Your task to perform on an android device: turn on the 12-hour format for clock Image 0: 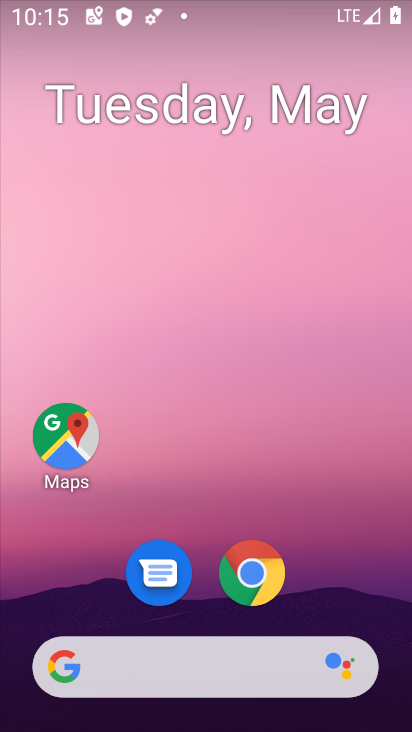
Step 0: drag from (121, 617) to (81, 43)
Your task to perform on an android device: turn on the 12-hour format for clock Image 1: 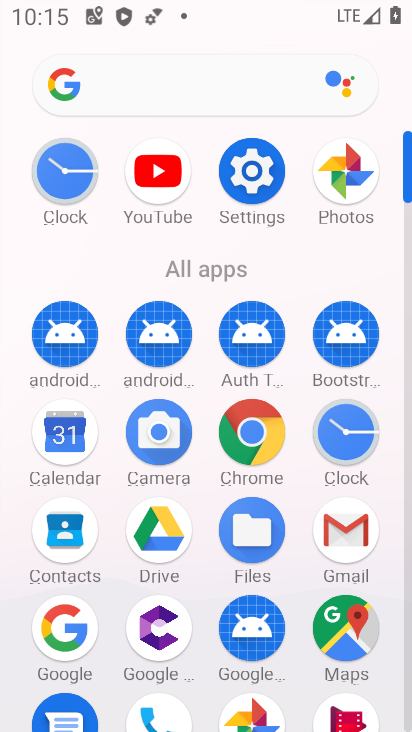
Step 1: click (251, 196)
Your task to perform on an android device: turn on the 12-hour format for clock Image 2: 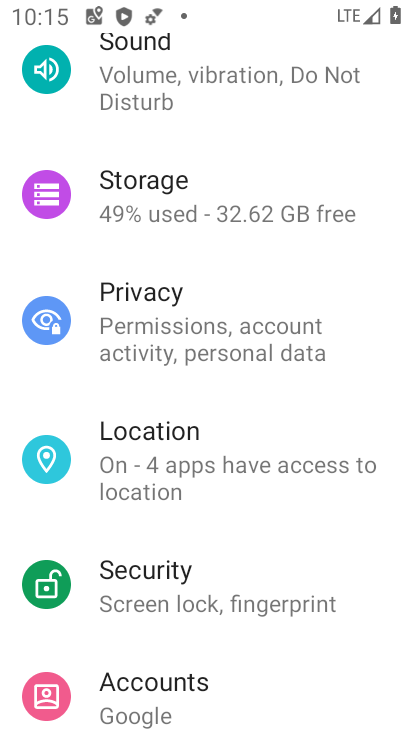
Step 2: drag from (283, 646) to (244, 168)
Your task to perform on an android device: turn on the 12-hour format for clock Image 3: 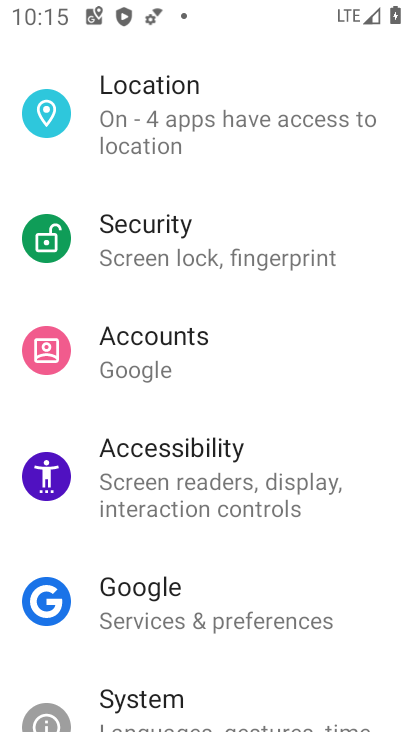
Step 3: drag from (285, 628) to (259, 287)
Your task to perform on an android device: turn on the 12-hour format for clock Image 4: 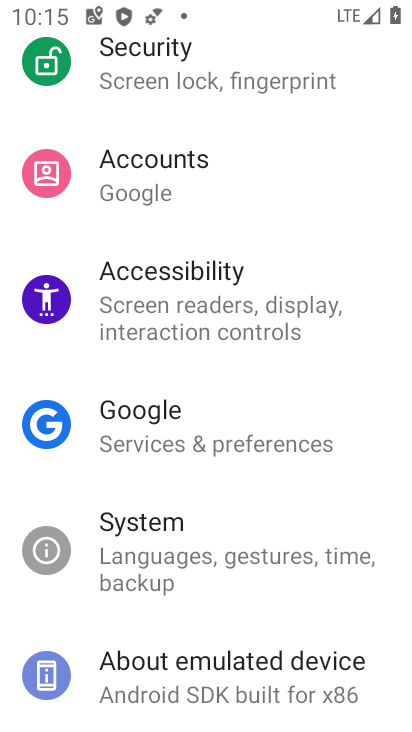
Step 4: click (239, 564)
Your task to perform on an android device: turn on the 12-hour format for clock Image 5: 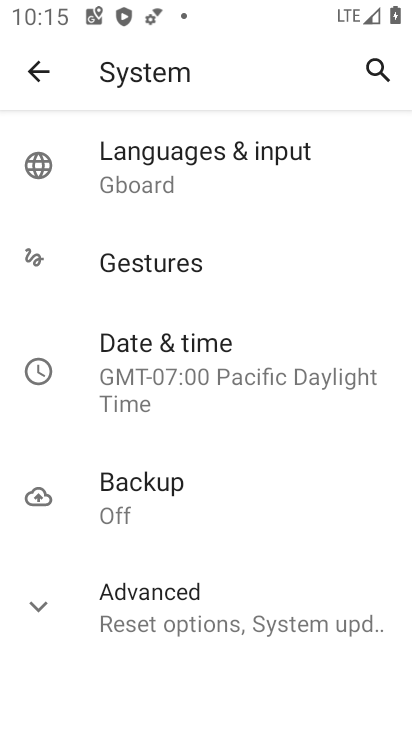
Step 5: click (169, 403)
Your task to perform on an android device: turn on the 12-hour format for clock Image 6: 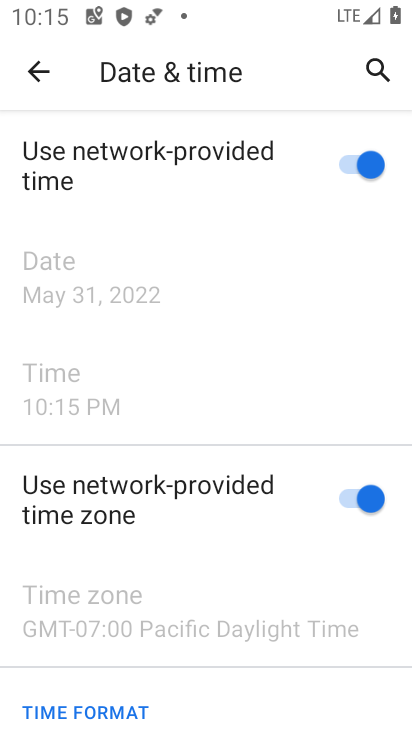
Step 6: task complete